Your task to perform on an android device: add a contact Image 0: 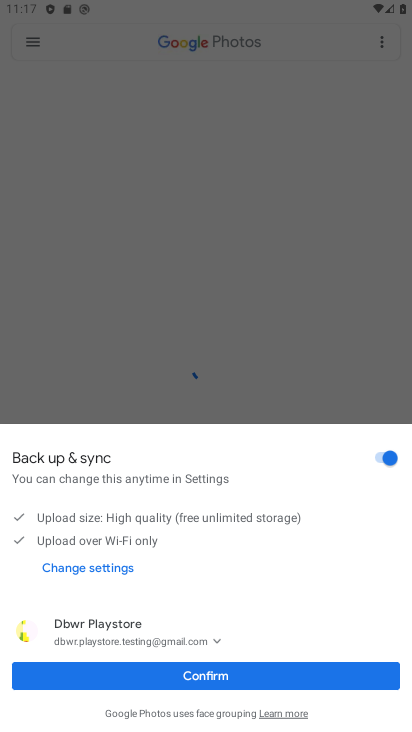
Step 0: press home button
Your task to perform on an android device: add a contact Image 1: 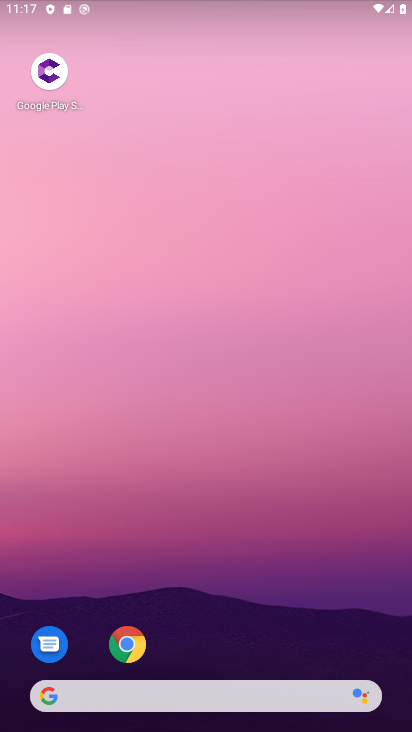
Step 1: drag from (287, 597) to (209, 55)
Your task to perform on an android device: add a contact Image 2: 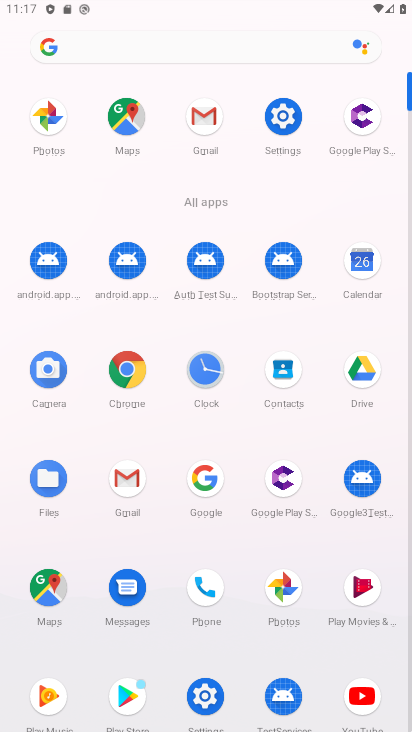
Step 2: click (277, 358)
Your task to perform on an android device: add a contact Image 3: 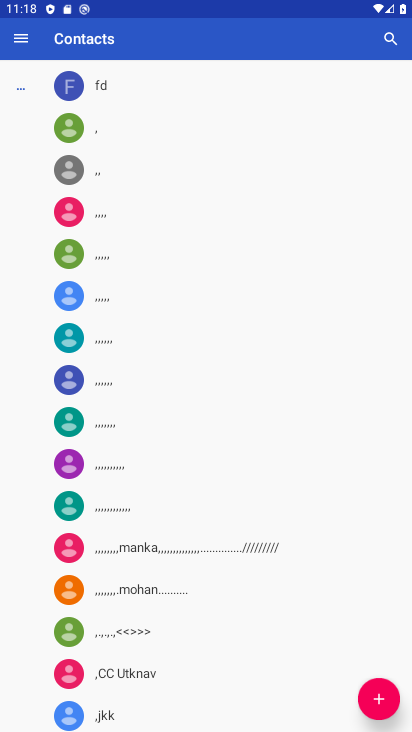
Step 3: click (378, 699)
Your task to perform on an android device: add a contact Image 4: 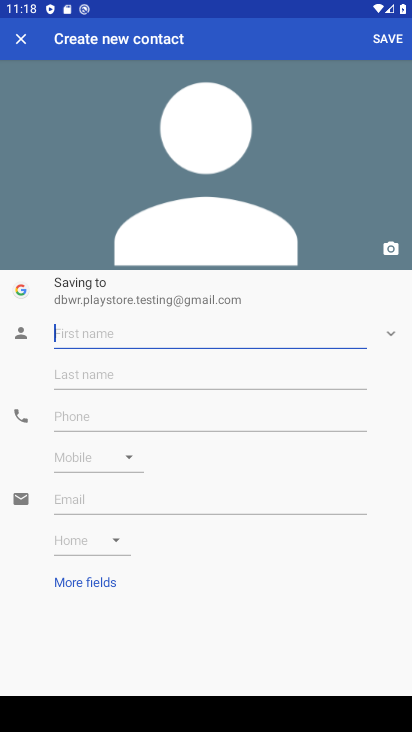
Step 4: type "hghfhfh"
Your task to perform on an android device: add a contact Image 5: 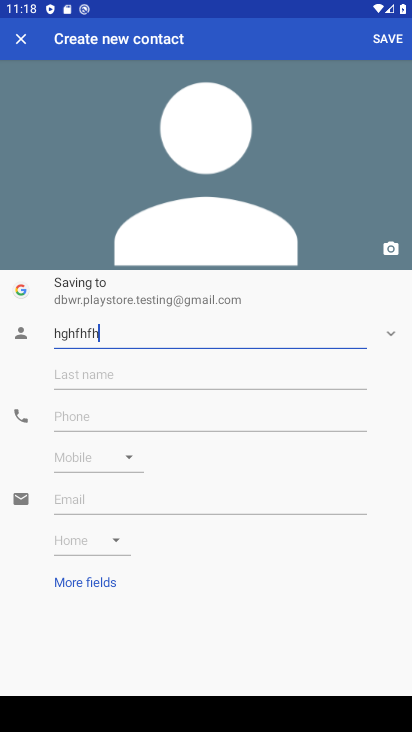
Step 5: click (139, 374)
Your task to perform on an android device: add a contact Image 6: 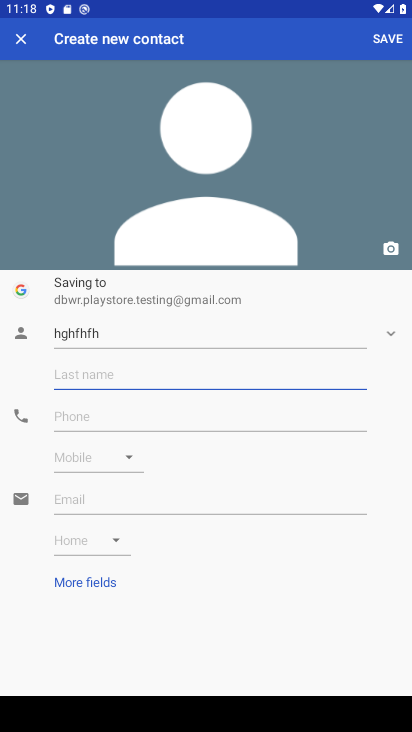
Step 6: type "hhghfvgh"
Your task to perform on an android device: add a contact Image 7: 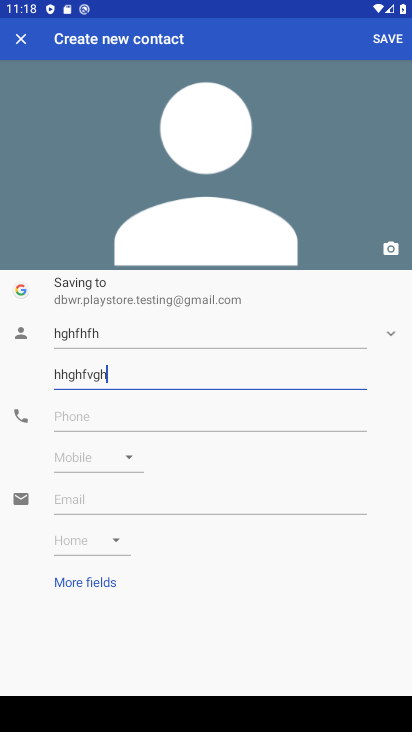
Step 7: type ""
Your task to perform on an android device: add a contact Image 8: 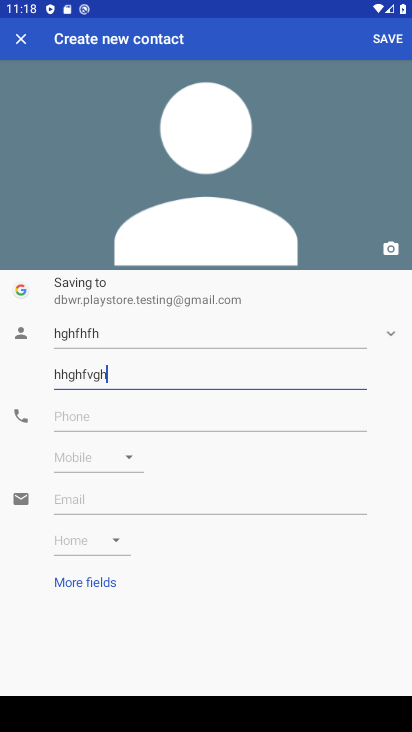
Step 8: click (242, 421)
Your task to perform on an android device: add a contact Image 9: 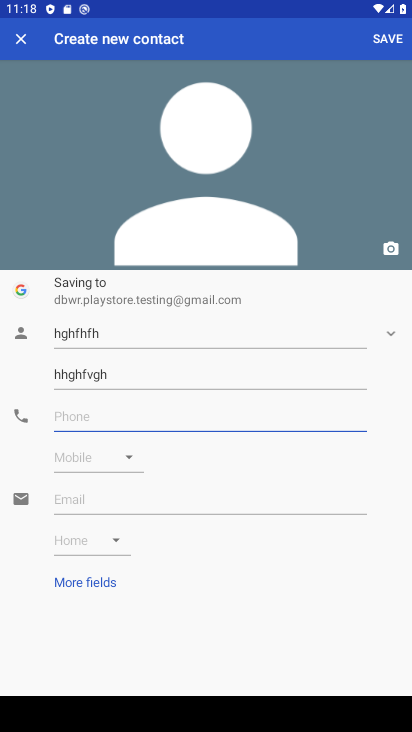
Step 9: type "67576577"
Your task to perform on an android device: add a contact Image 10: 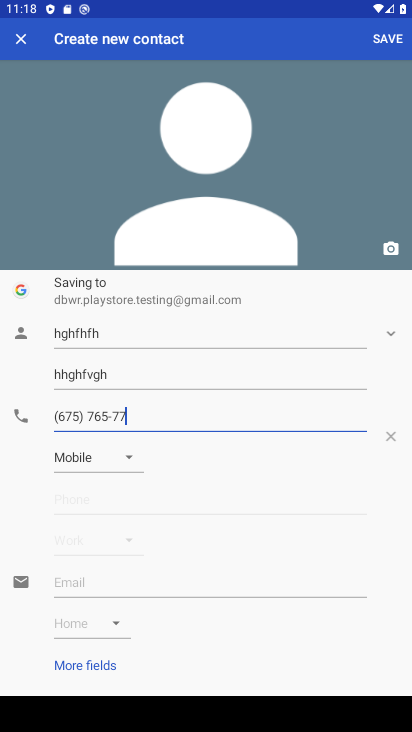
Step 10: type ""
Your task to perform on an android device: add a contact Image 11: 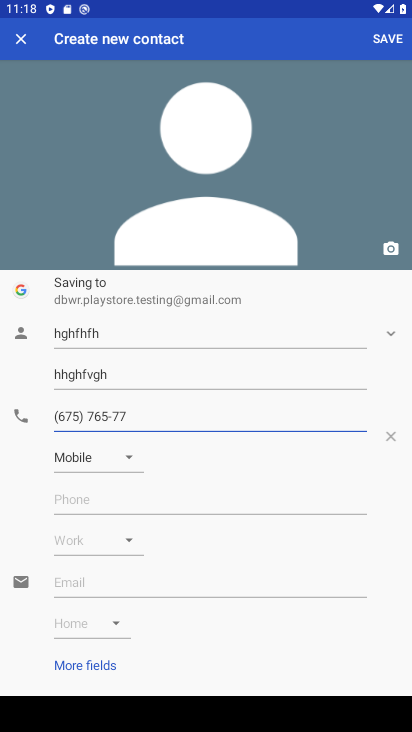
Step 11: click (397, 46)
Your task to perform on an android device: add a contact Image 12: 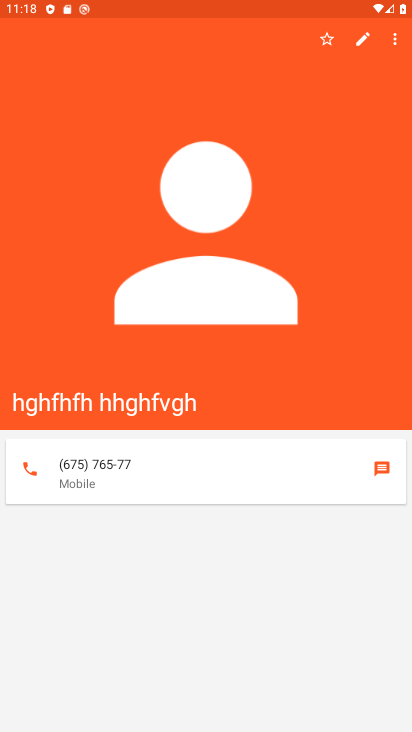
Step 12: task complete